Your task to perform on an android device: Open Google Maps and go to "Timeline" Image 0: 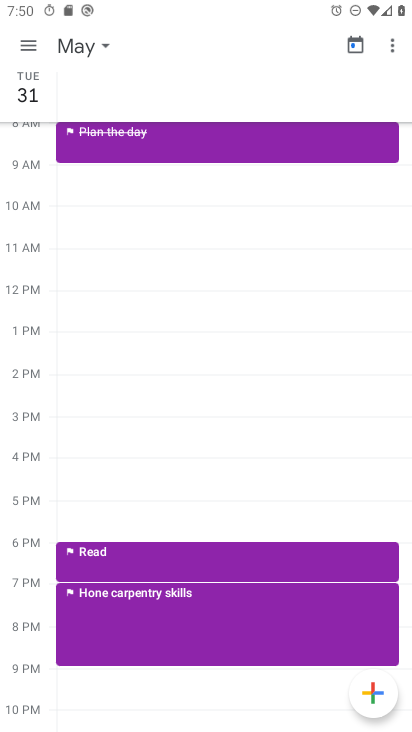
Step 0: press home button
Your task to perform on an android device: Open Google Maps and go to "Timeline" Image 1: 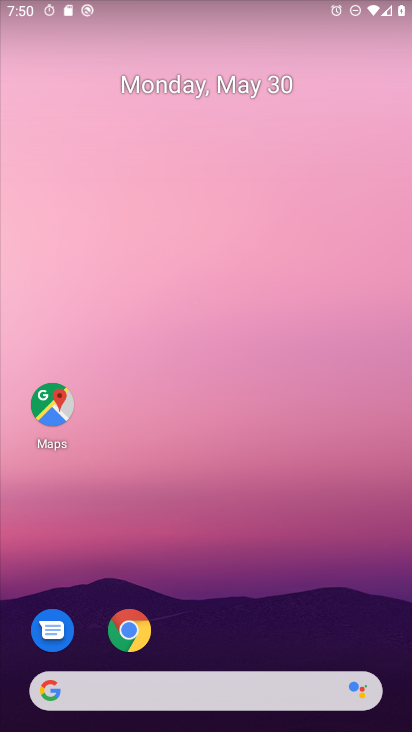
Step 1: drag from (298, 606) to (246, 67)
Your task to perform on an android device: Open Google Maps and go to "Timeline" Image 2: 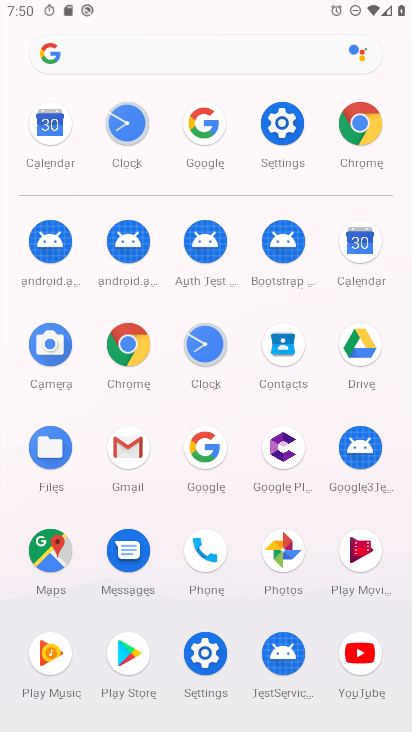
Step 2: click (41, 555)
Your task to perform on an android device: Open Google Maps and go to "Timeline" Image 3: 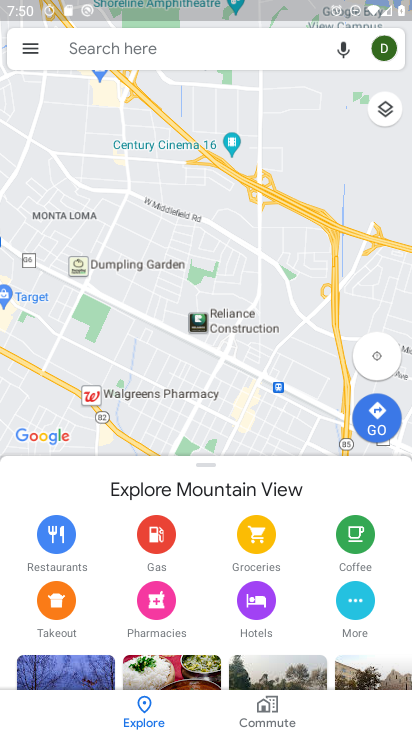
Step 3: click (31, 42)
Your task to perform on an android device: Open Google Maps and go to "Timeline" Image 4: 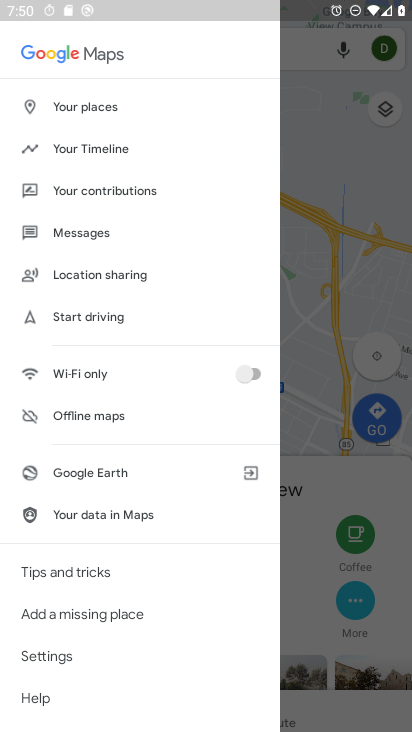
Step 4: click (71, 154)
Your task to perform on an android device: Open Google Maps and go to "Timeline" Image 5: 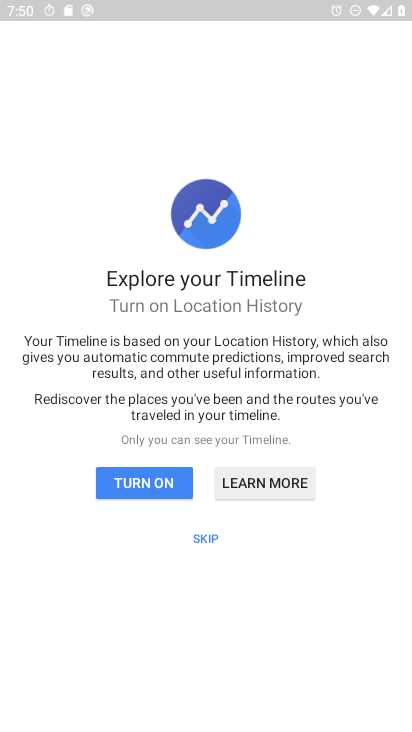
Step 5: task complete